Your task to perform on an android device: Go to Yahoo.com Image 0: 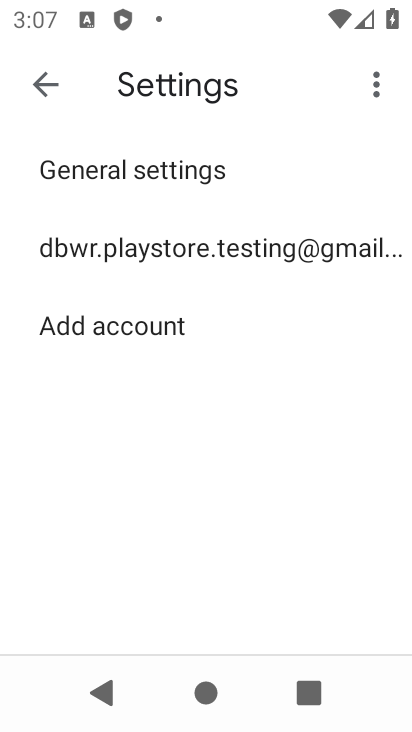
Step 0: task complete